Your task to perform on an android device: What is the recent news? Image 0: 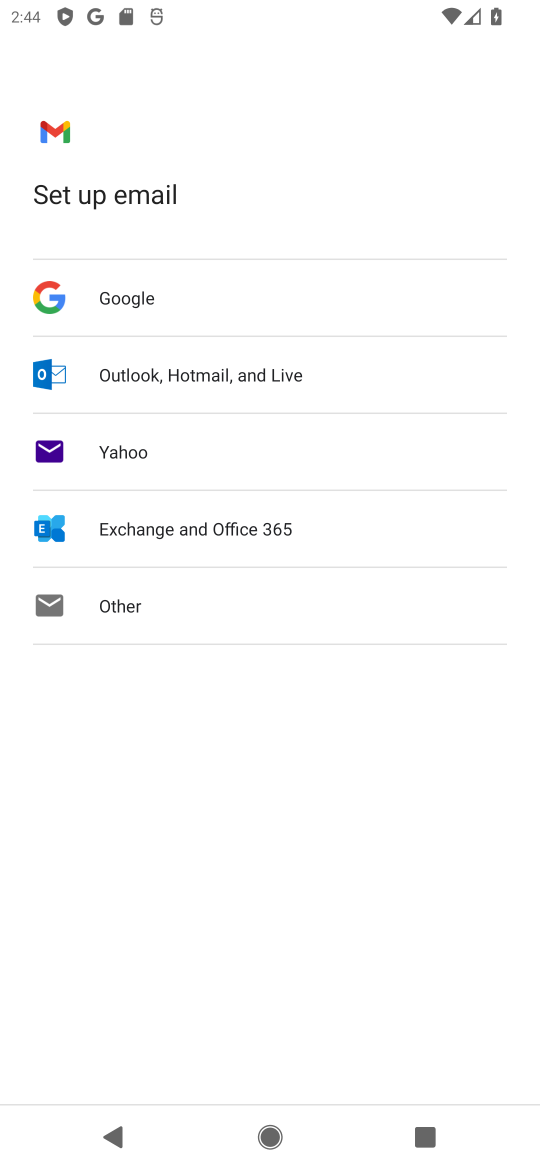
Step 0: press home button
Your task to perform on an android device: What is the recent news? Image 1: 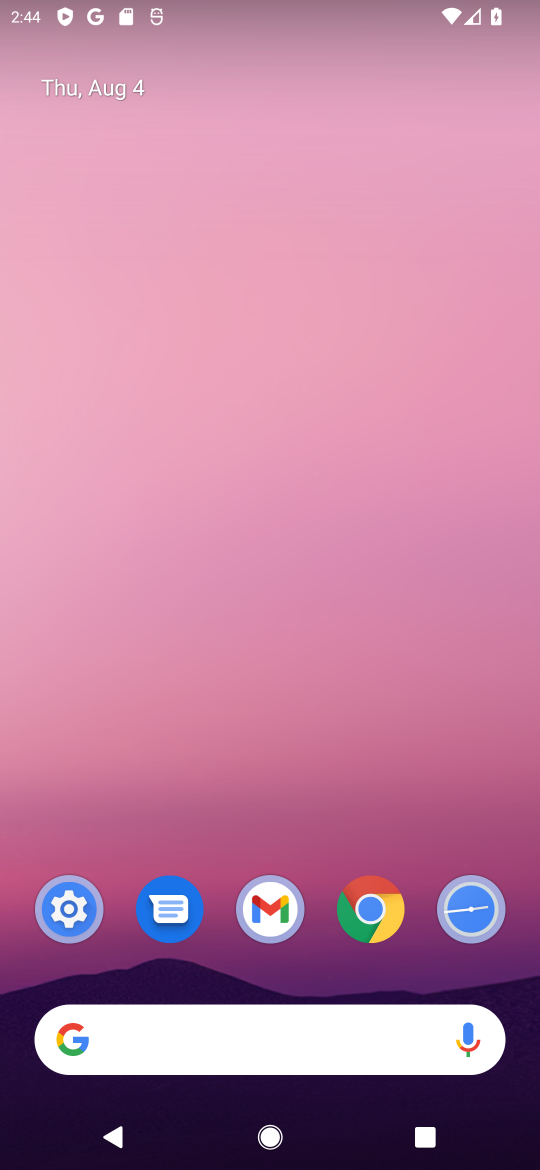
Step 1: click (203, 1044)
Your task to perform on an android device: What is the recent news? Image 2: 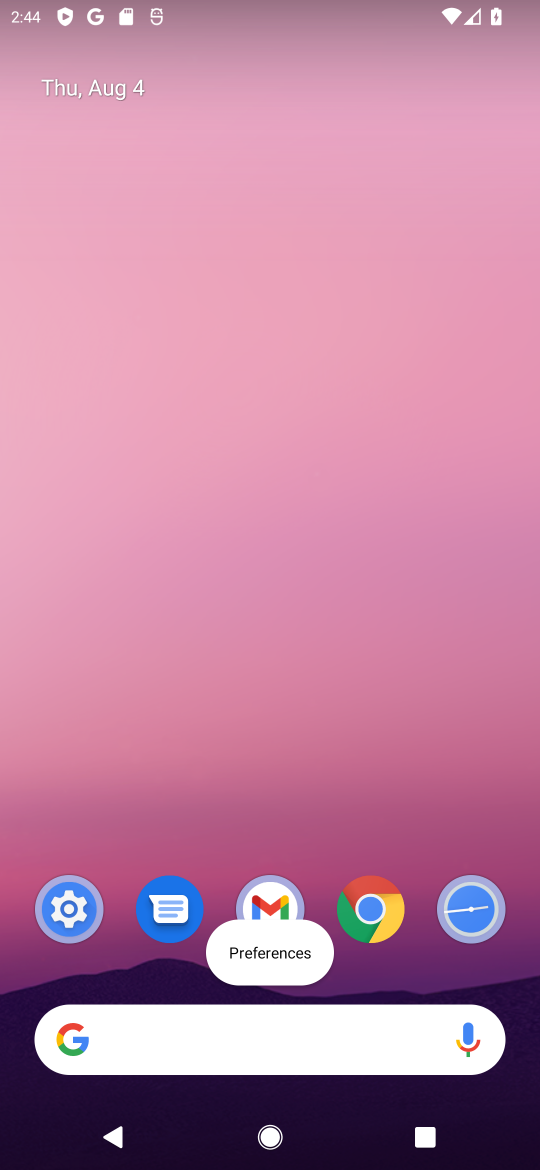
Step 2: click (179, 1025)
Your task to perform on an android device: What is the recent news? Image 3: 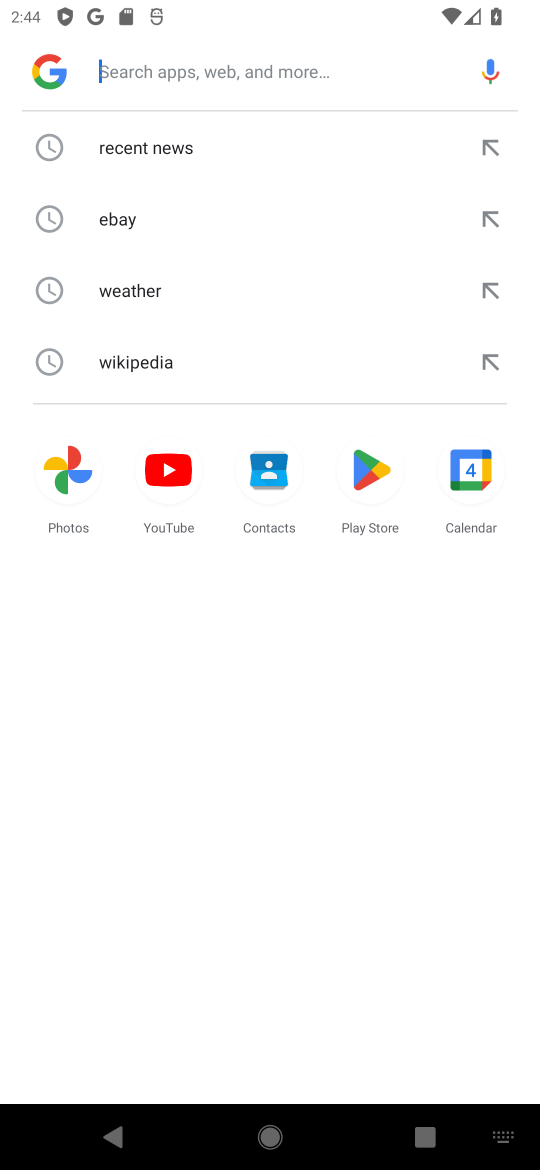
Step 3: click (158, 146)
Your task to perform on an android device: What is the recent news? Image 4: 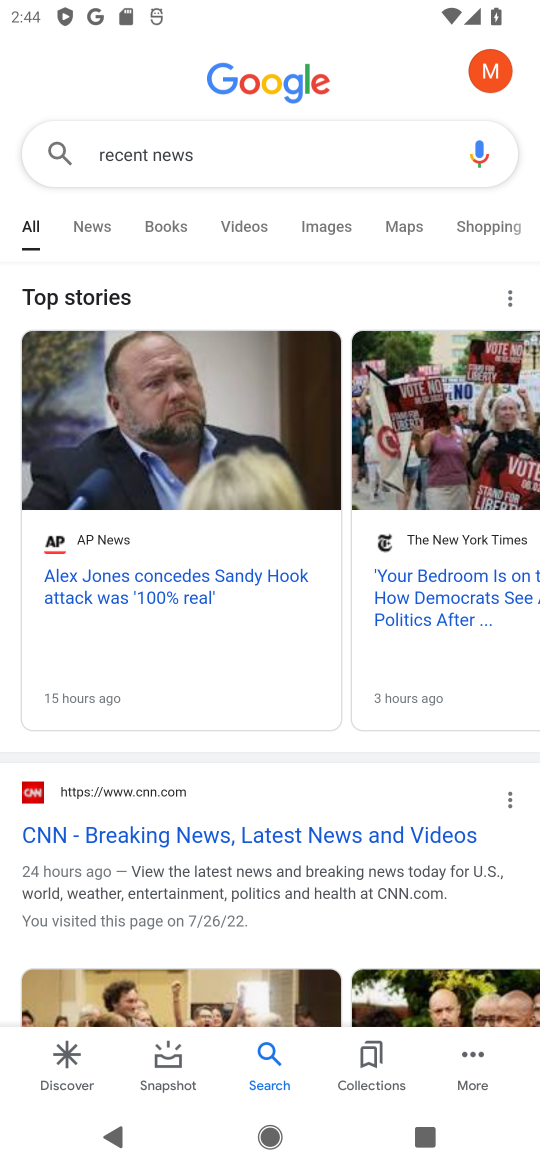
Step 4: click (85, 222)
Your task to perform on an android device: What is the recent news? Image 5: 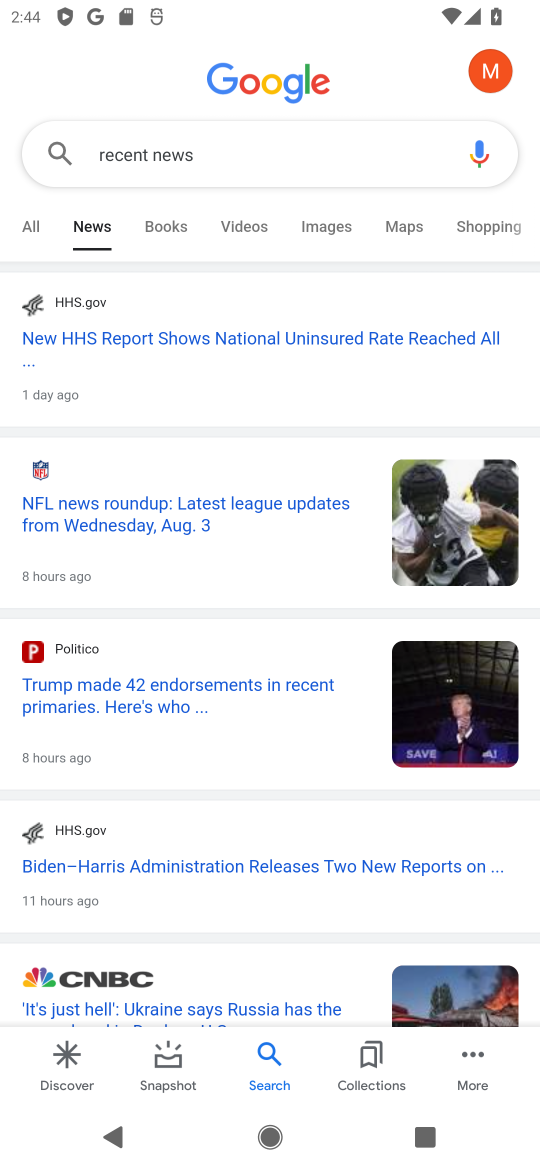
Step 5: task complete